Your task to perform on an android device: Open sound settings Image 0: 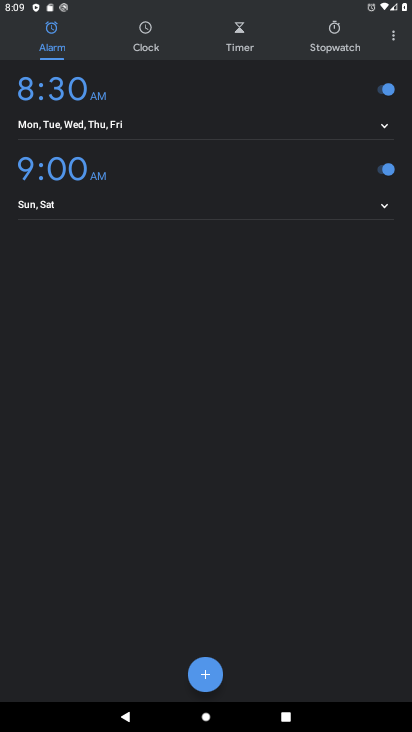
Step 0: press home button
Your task to perform on an android device: Open sound settings Image 1: 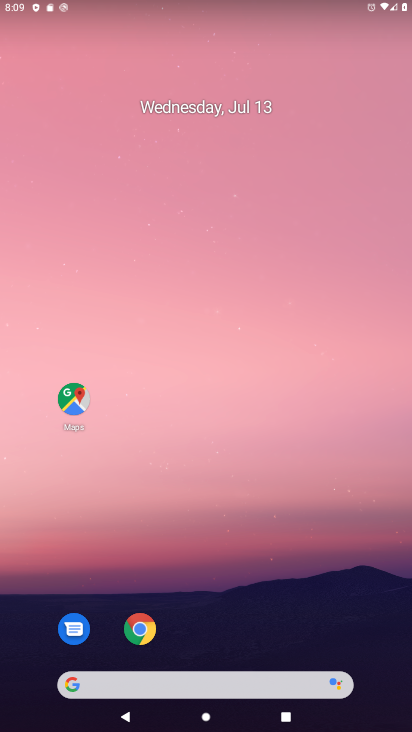
Step 1: drag from (334, 490) to (182, 8)
Your task to perform on an android device: Open sound settings Image 2: 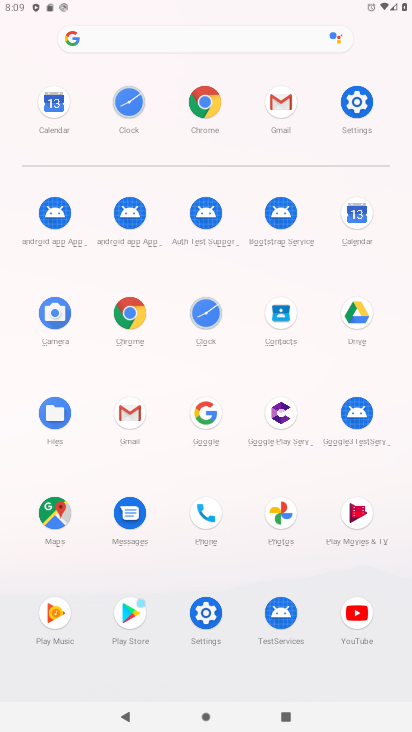
Step 2: click (360, 94)
Your task to perform on an android device: Open sound settings Image 3: 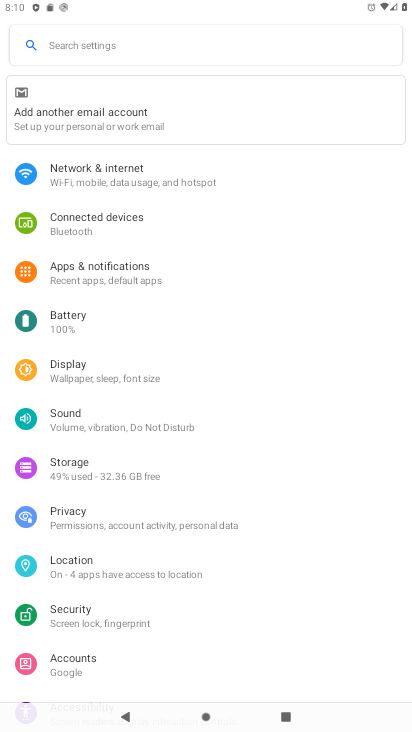
Step 3: task complete